Your task to perform on an android device: check google app version Image 0: 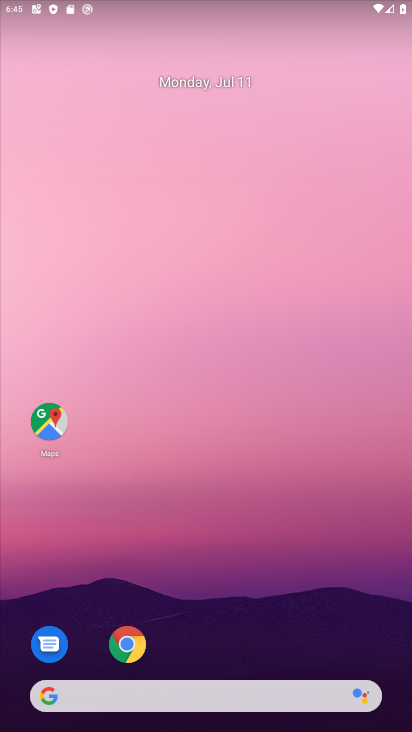
Step 0: drag from (251, 708) to (298, 30)
Your task to perform on an android device: check google app version Image 1: 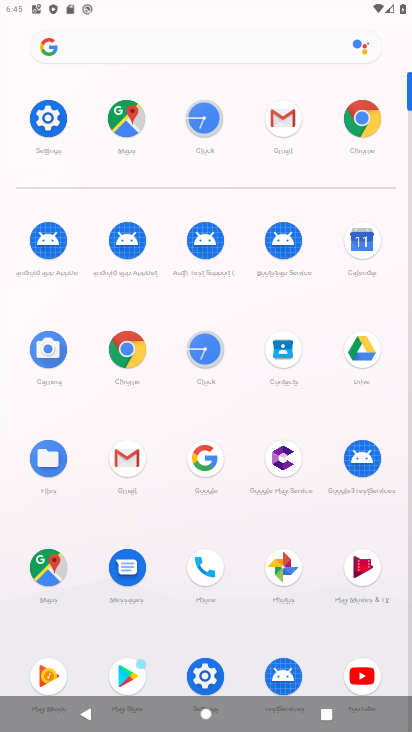
Step 1: click (45, 105)
Your task to perform on an android device: check google app version Image 2: 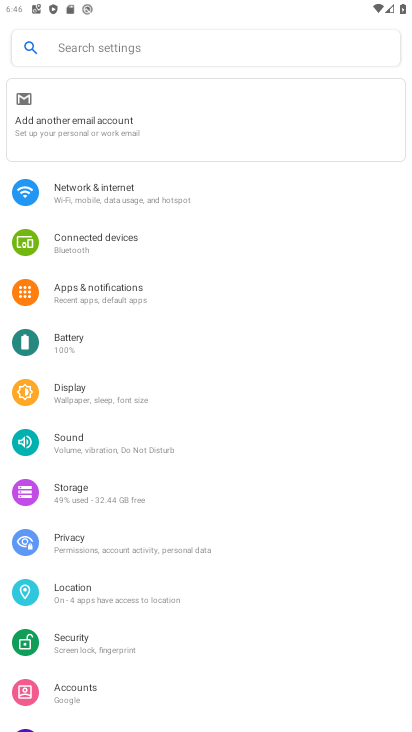
Step 2: press home button
Your task to perform on an android device: check google app version Image 3: 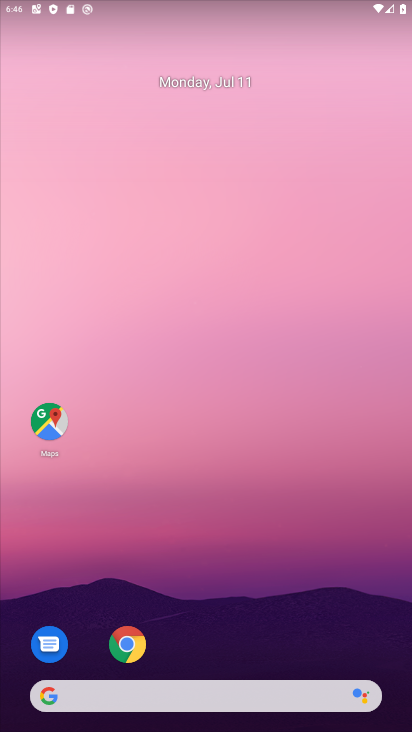
Step 3: drag from (330, 675) to (358, 122)
Your task to perform on an android device: check google app version Image 4: 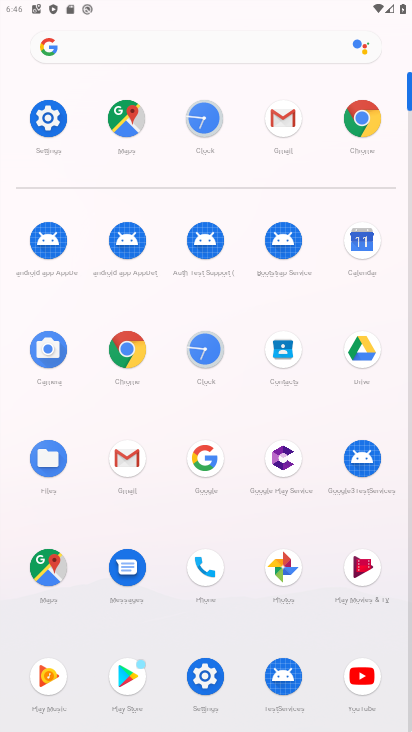
Step 4: click (362, 113)
Your task to perform on an android device: check google app version Image 5: 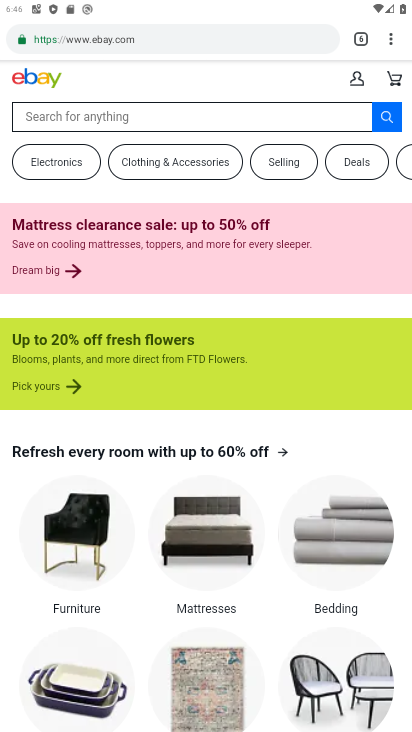
Step 5: click (393, 34)
Your task to perform on an android device: check google app version Image 6: 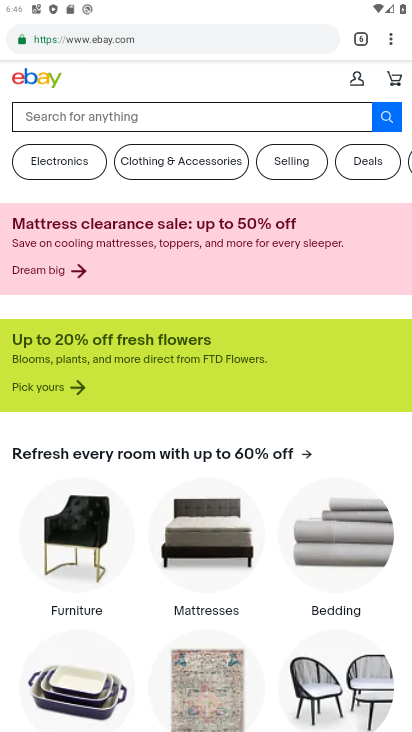
Step 6: drag from (394, 32) to (294, 506)
Your task to perform on an android device: check google app version Image 7: 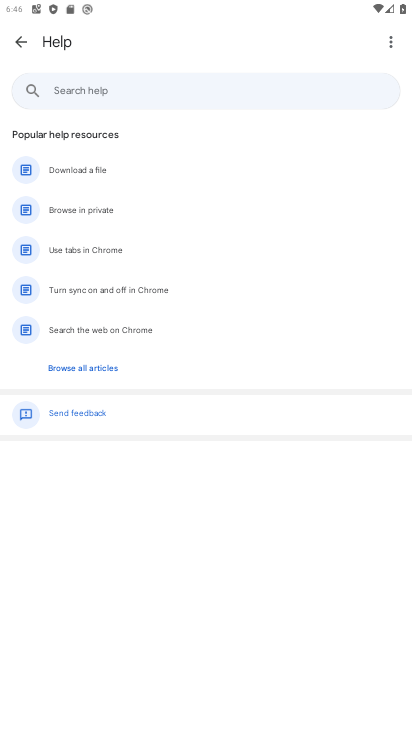
Step 7: click (389, 39)
Your task to perform on an android device: check google app version Image 8: 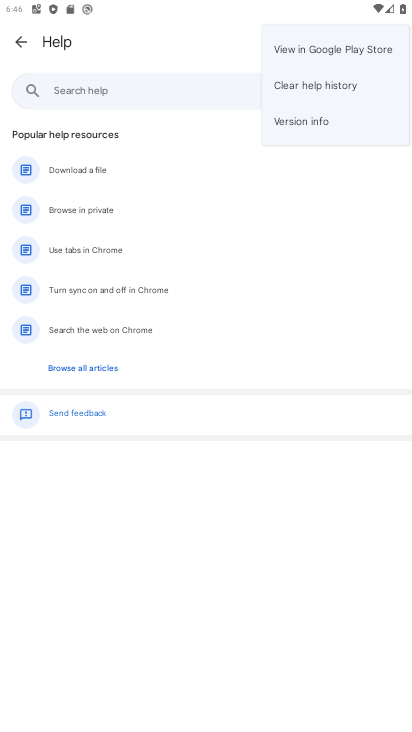
Step 8: click (332, 124)
Your task to perform on an android device: check google app version Image 9: 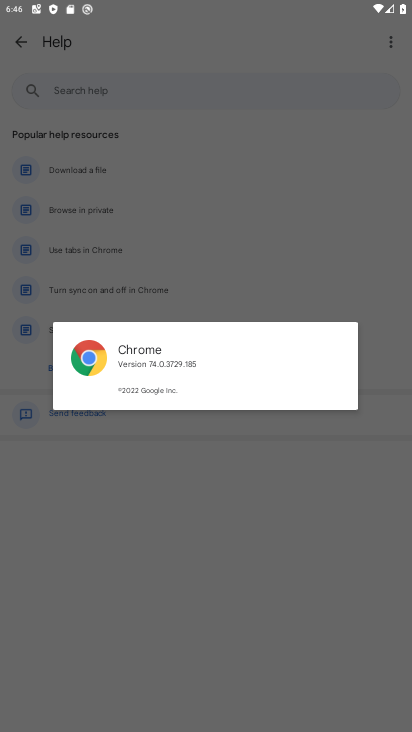
Step 9: task complete